Your task to perform on an android device: Is it going to rain this weekend? Image 0: 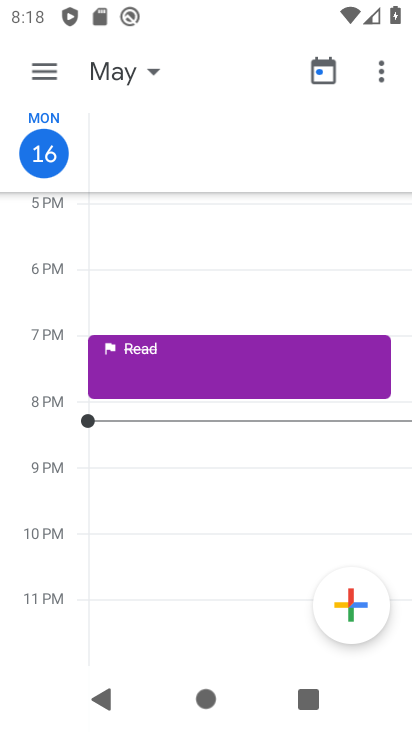
Step 0: press home button
Your task to perform on an android device: Is it going to rain this weekend? Image 1: 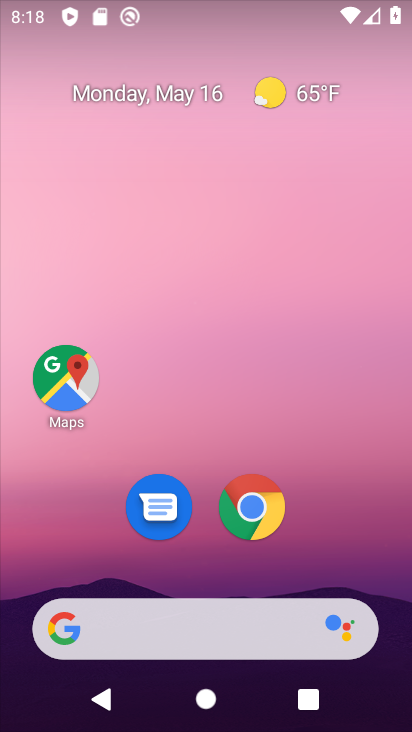
Step 1: click (193, 615)
Your task to perform on an android device: Is it going to rain this weekend? Image 2: 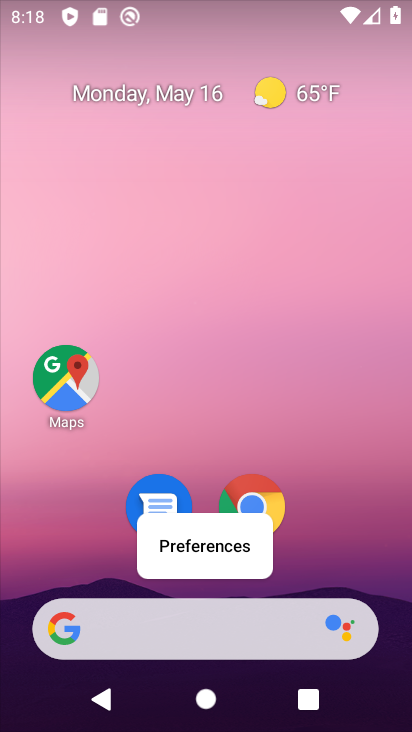
Step 2: click (126, 613)
Your task to perform on an android device: Is it going to rain this weekend? Image 3: 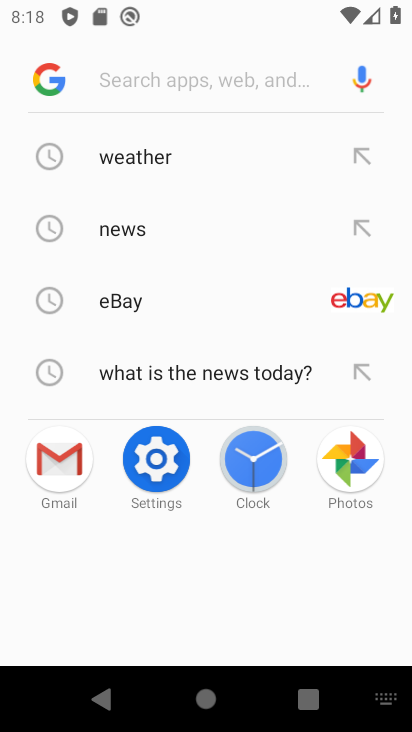
Step 3: click (142, 156)
Your task to perform on an android device: Is it going to rain this weekend? Image 4: 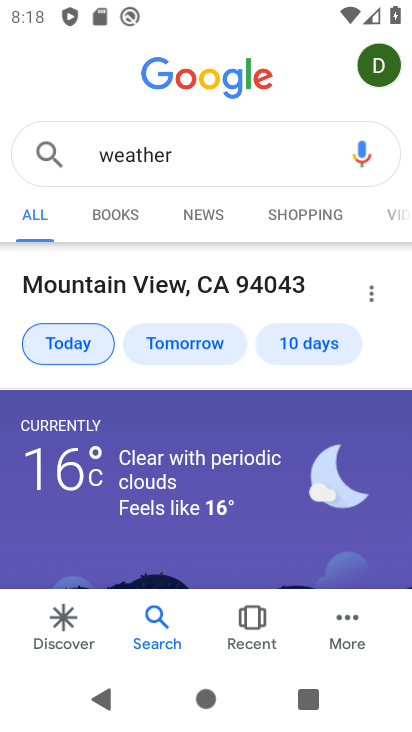
Step 4: task complete